Your task to perform on an android device: Go to CNN.com Image 0: 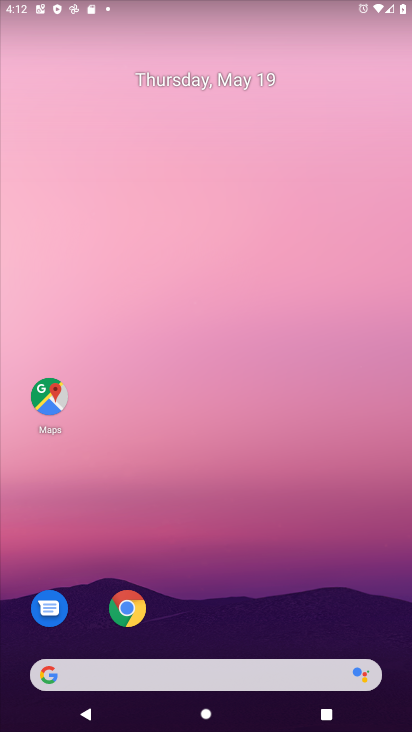
Step 0: drag from (250, 618) to (248, 112)
Your task to perform on an android device: Go to CNN.com Image 1: 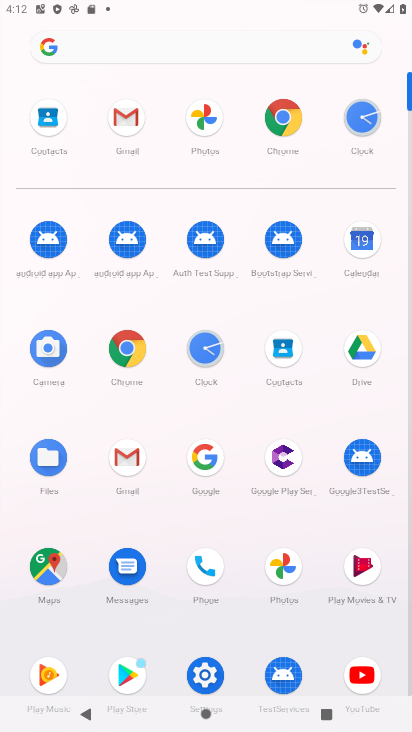
Step 1: click (205, 47)
Your task to perform on an android device: Go to CNN.com Image 2: 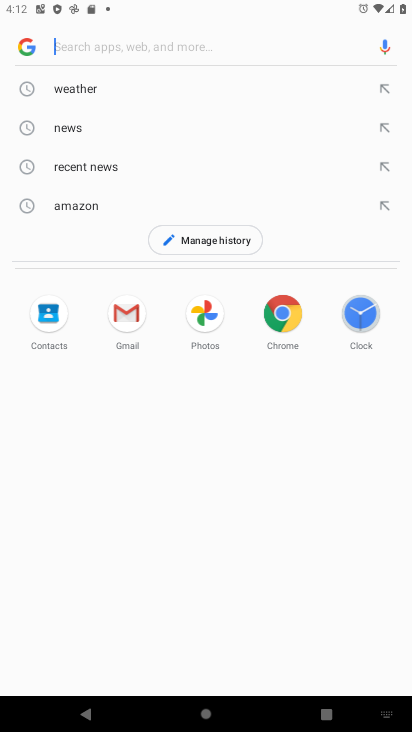
Step 2: type "cnn.com"
Your task to perform on an android device: Go to CNN.com Image 3: 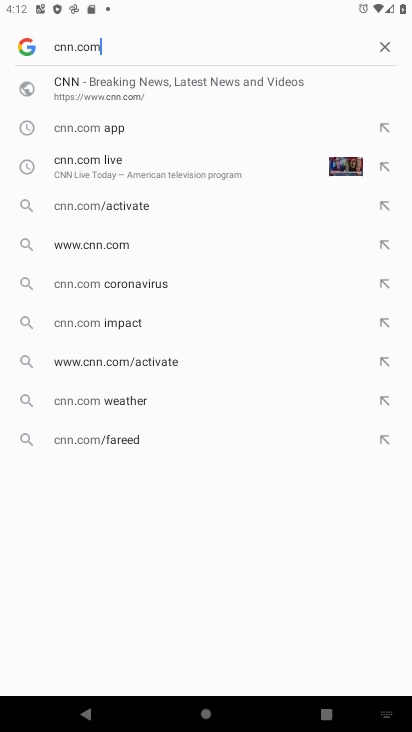
Step 3: click (151, 95)
Your task to perform on an android device: Go to CNN.com Image 4: 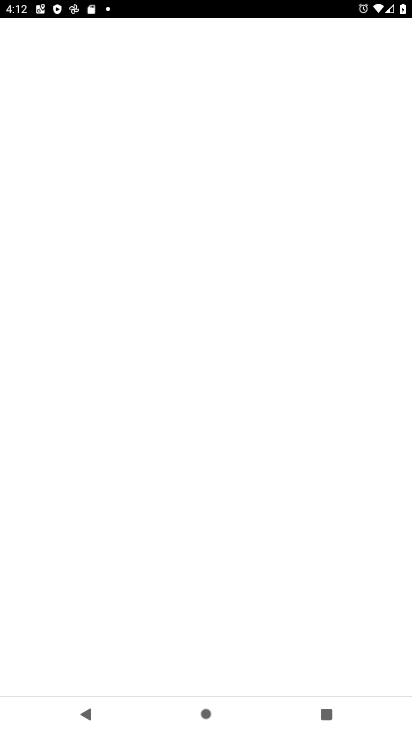
Step 4: task complete